Your task to perform on an android device: set the timer Image 0: 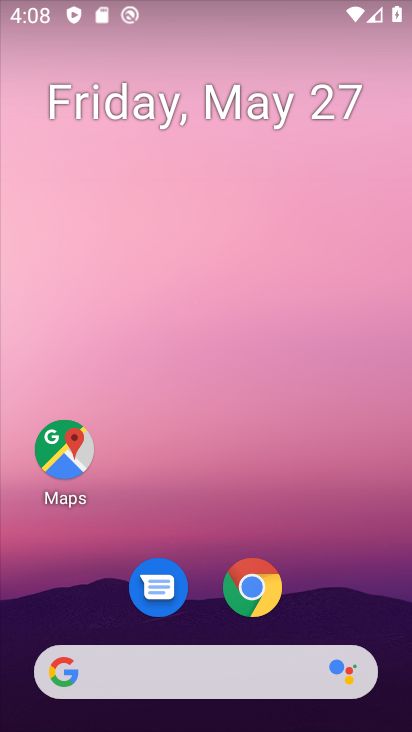
Step 0: drag from (333, 576) to (268, 25)
Your task to perform on an android device: set the timer Image 1: 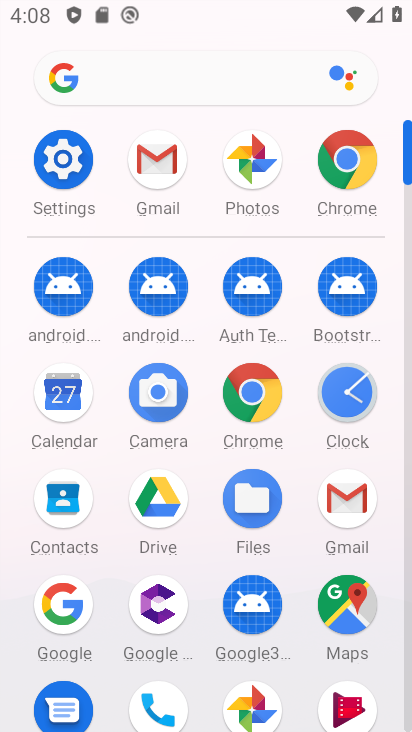
Step 1: drag from (7, 597) to (7, 219)
Your task to perform on an android device: set the timer Image 2: 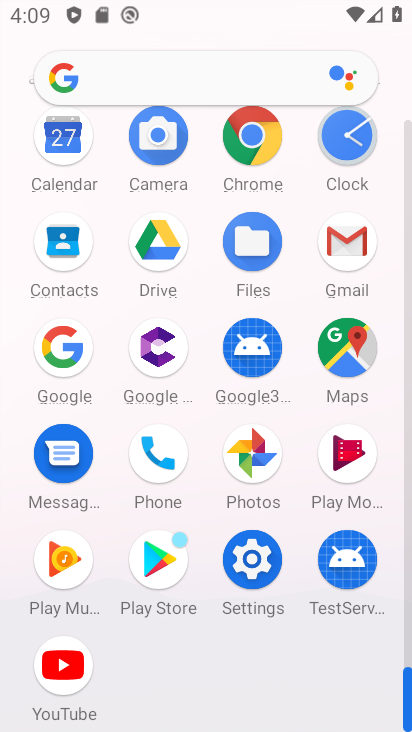
Step 2: click (350, 133)
Your task to perform on an android device: set the timer Image 3: 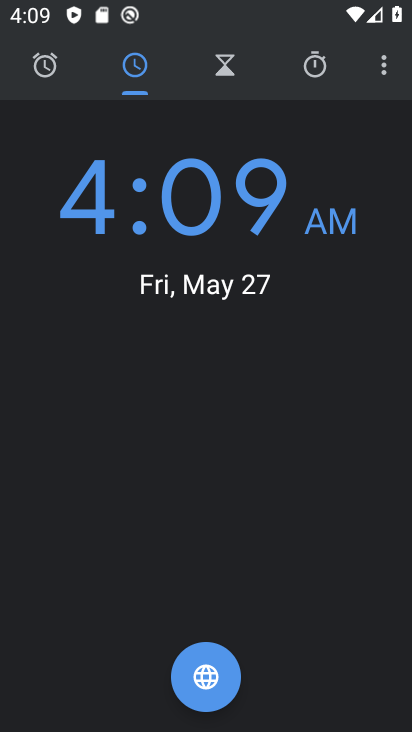
Step 3: click (315, 69)
Your task to perform on an android device: set the timer Image 4: 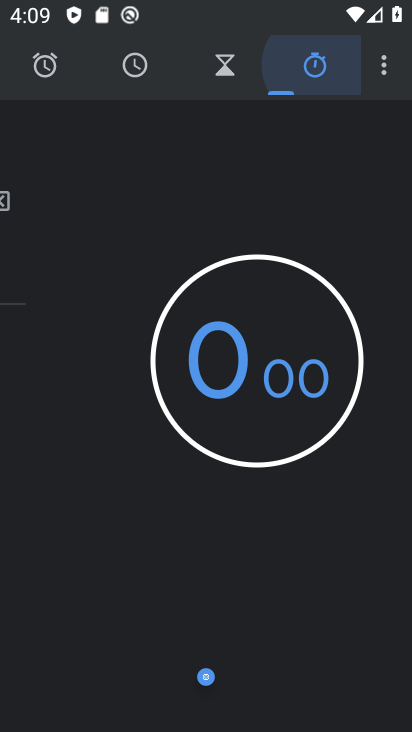
Step 4: click (228, 67)
Your task to perform on an android device: set the timer Image 5: 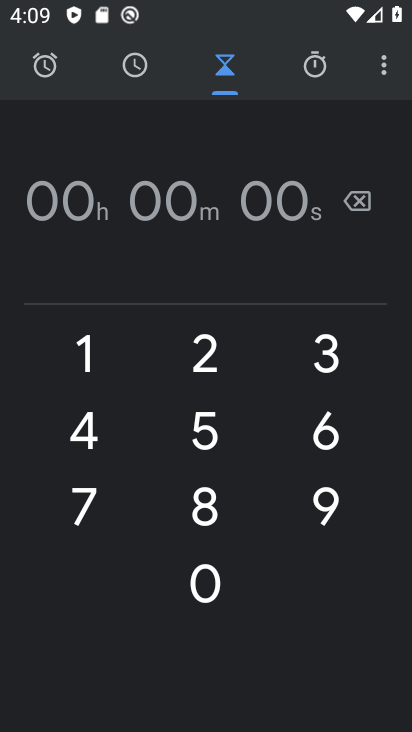
Step 5: click (194, 493)
Your task to perform on an android device: set the timer Image 6: 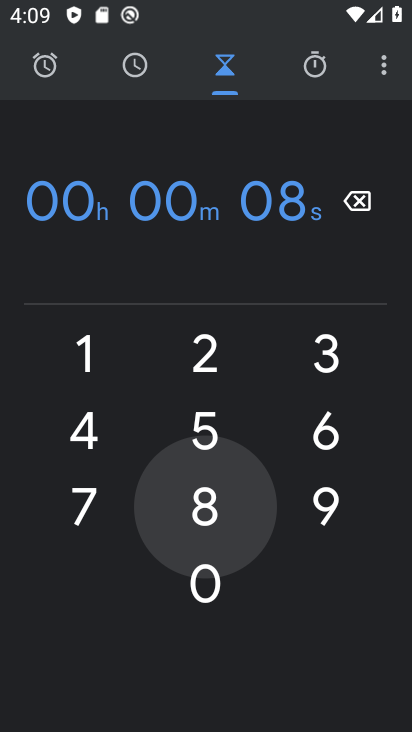
Step 6: click (203, 435)
Your task to perform on an android device: set the timer Image 7: 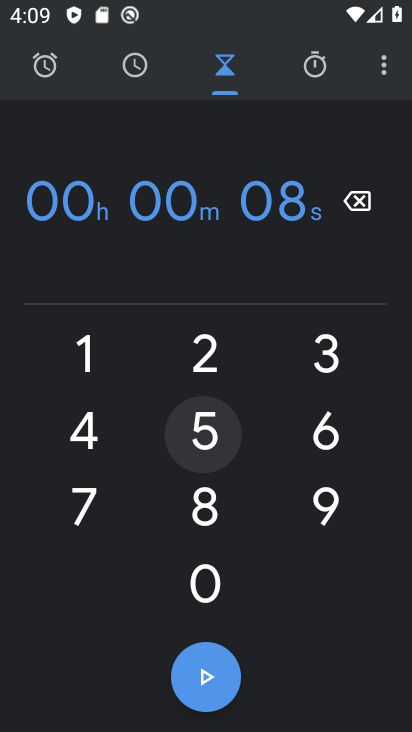
Step 7: click (204, 355)
Your task to perform on an android device: set the timer Image 8: 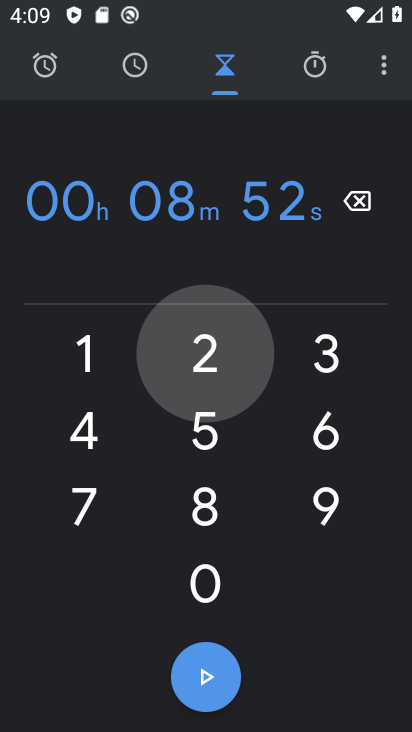
Step 8: drag from (93, 411) to (80, 493)
Your task to perform on an android device: set the timer Image 9: 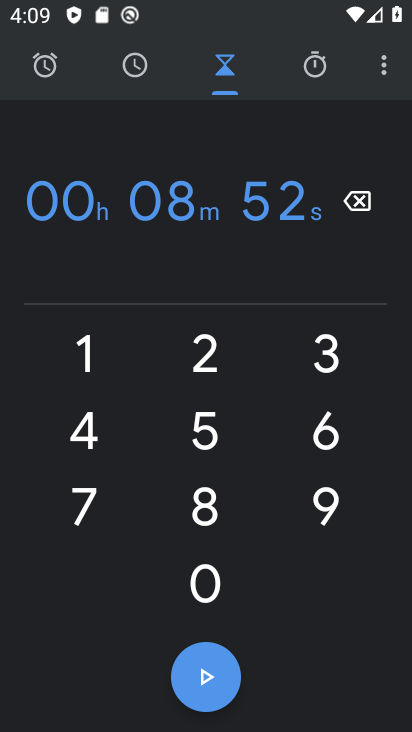
Step 9: click (197, 675)
Your task to perform on an android device: set the timer Image 10: 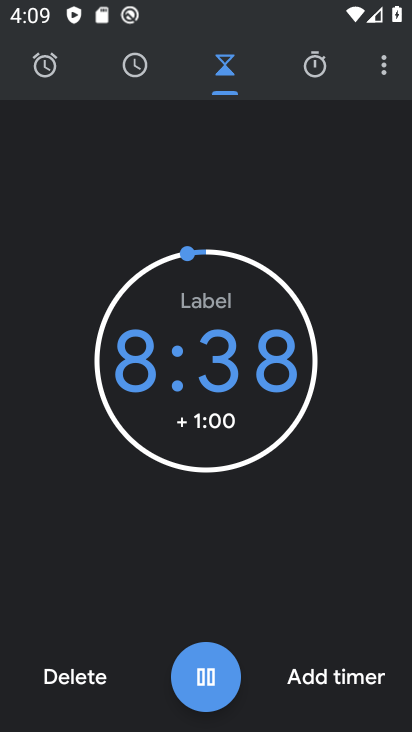
Step 10: click (305, 671)
Your task to perform on an android device: set the timer Image 11: 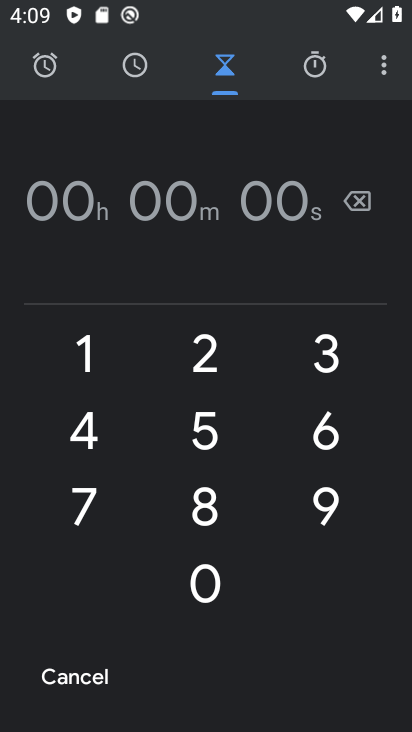
Step 11: click (215, 347)
Your task to perform on an android device: set the timer Image 12: 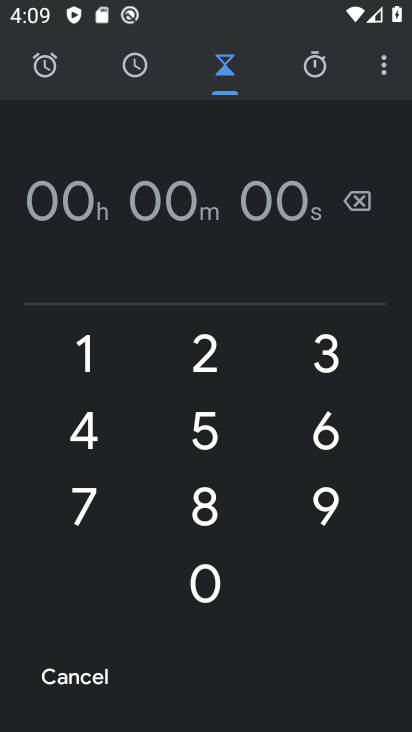
Step 12: click (207, 422)
Your task to perform on an android device: set the timer Image 13: 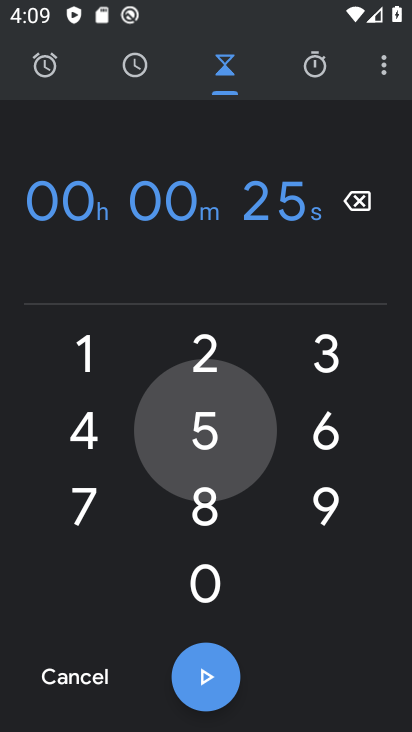
Step 13: click (184, 530)
Your task to perform on an android device: set the timer Image 14: 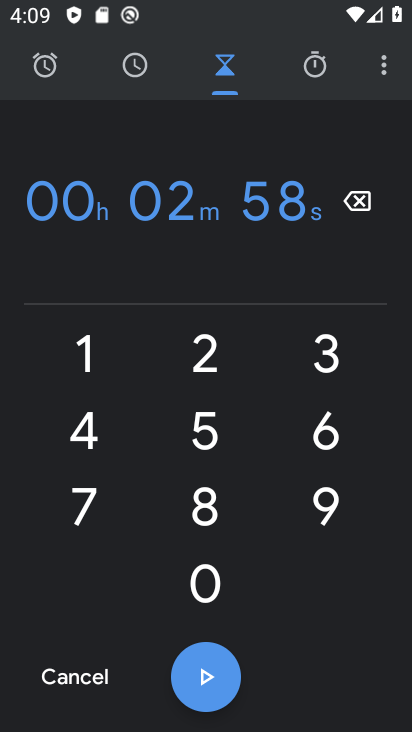
Step 14: click (192, 655)
Your task to perform on an android device: set the timer Image 15: 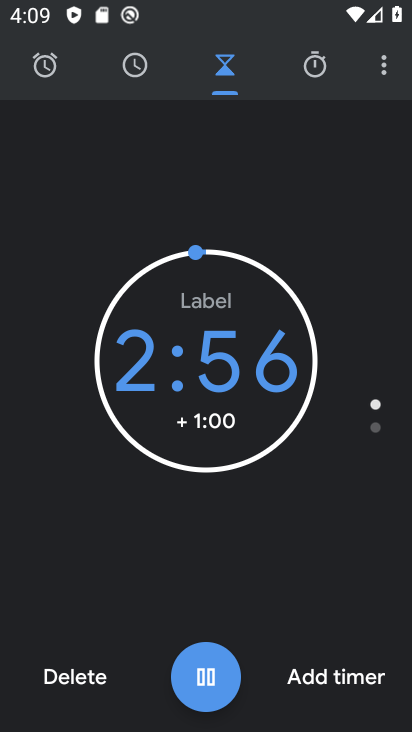
Step 15: task complete